Your task to perform on an android device: What's the weather? Image 0: 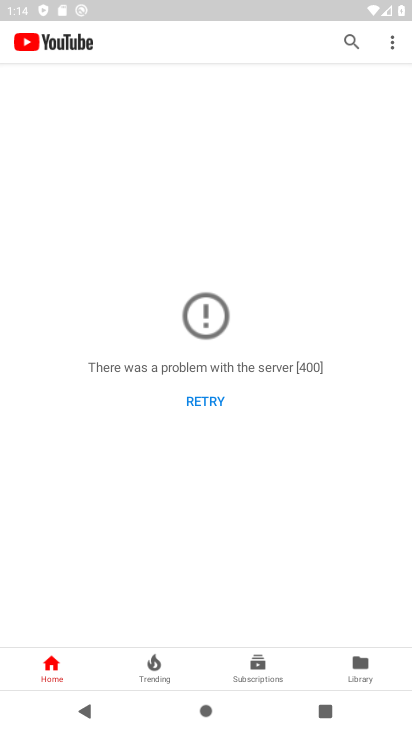
Step 0: press back button
Your task to perform on an android device: What's the weather? Image 1: 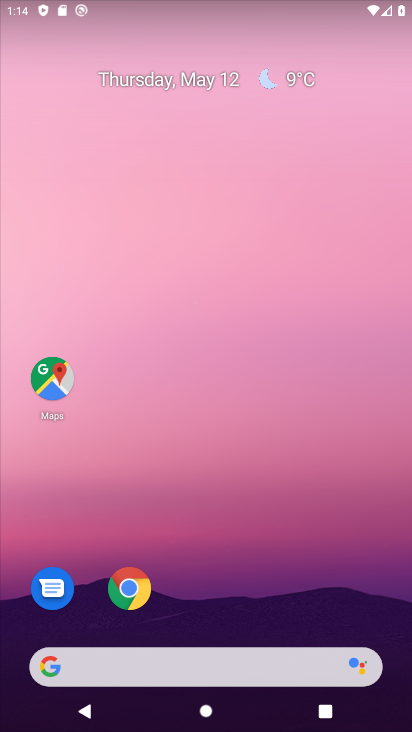
Step 1: press home button
Your task to perform on an android device: What's the weather? Image 2: 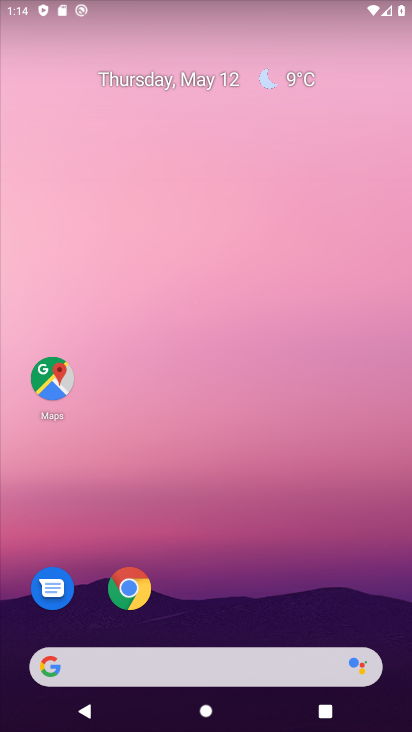
Step 2: click (301, 88)
Your task to perform on an android device: What's the weather? Image 3: 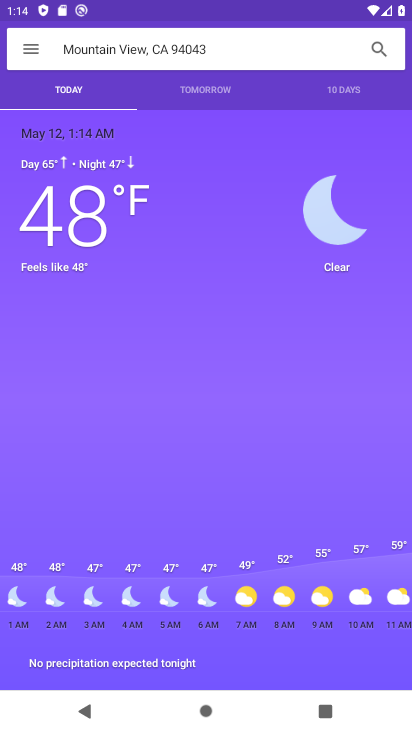
Step 3: task complete